Your task to perform on an android device: change the clock display to show seconds Image 0: 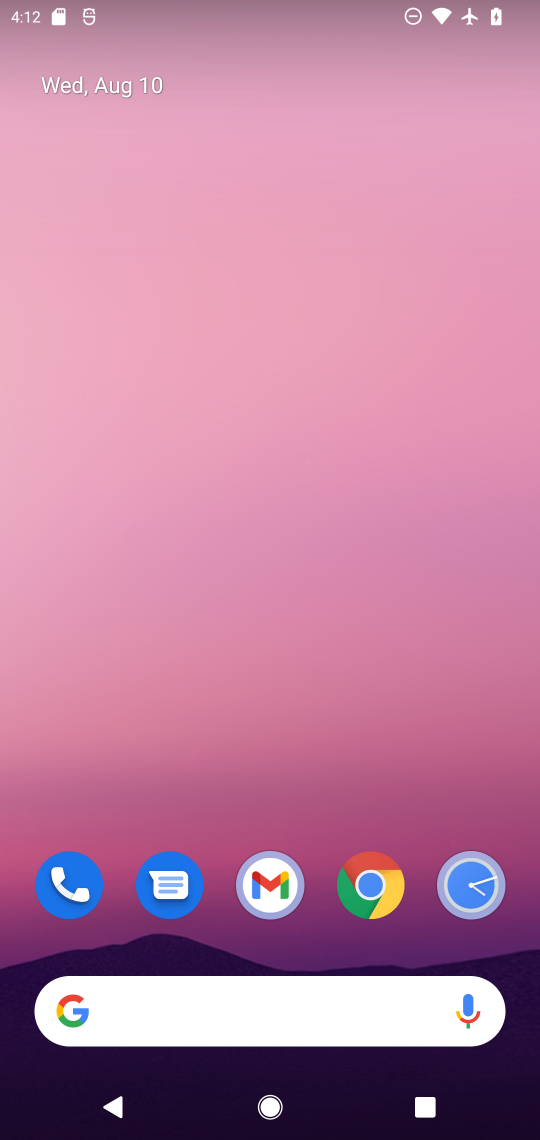
Step 0: click (472, 878)
Your task to perform on an android device: change the clock display to show seconds Image 1: 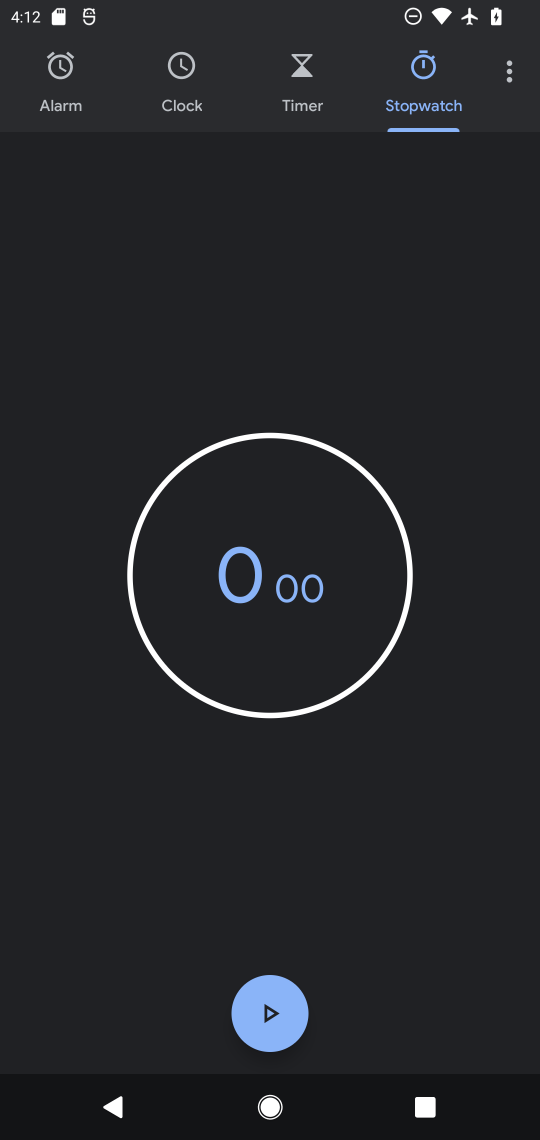
Step 1: click (516, 74)
Your task to perform on an android device: change the clock display to show seconds Image 2: 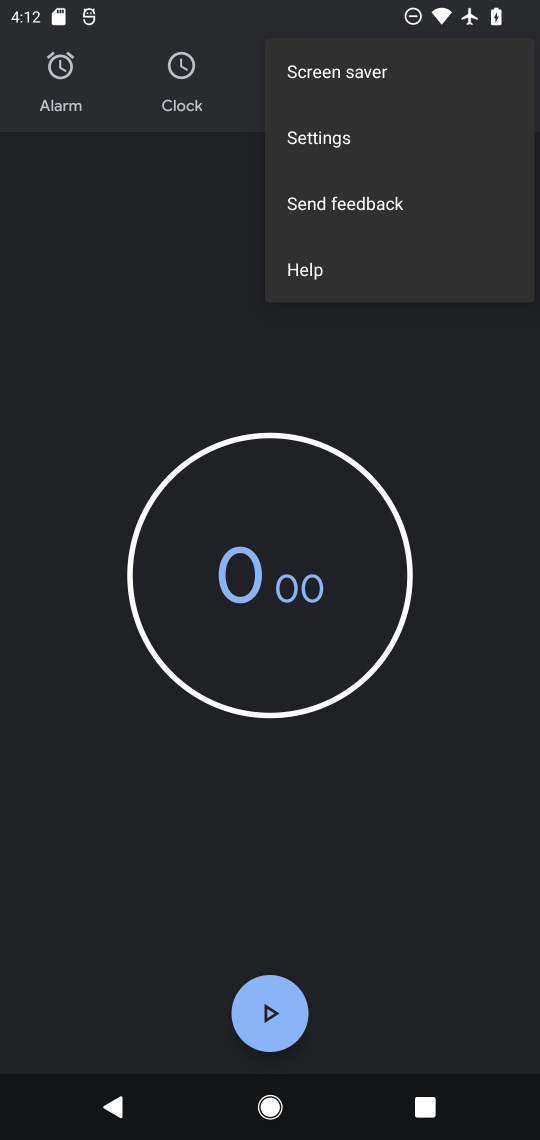
Step 2: click (323, 134)
Your task to perform on an android device: change the clock display to show seconds Image 3: 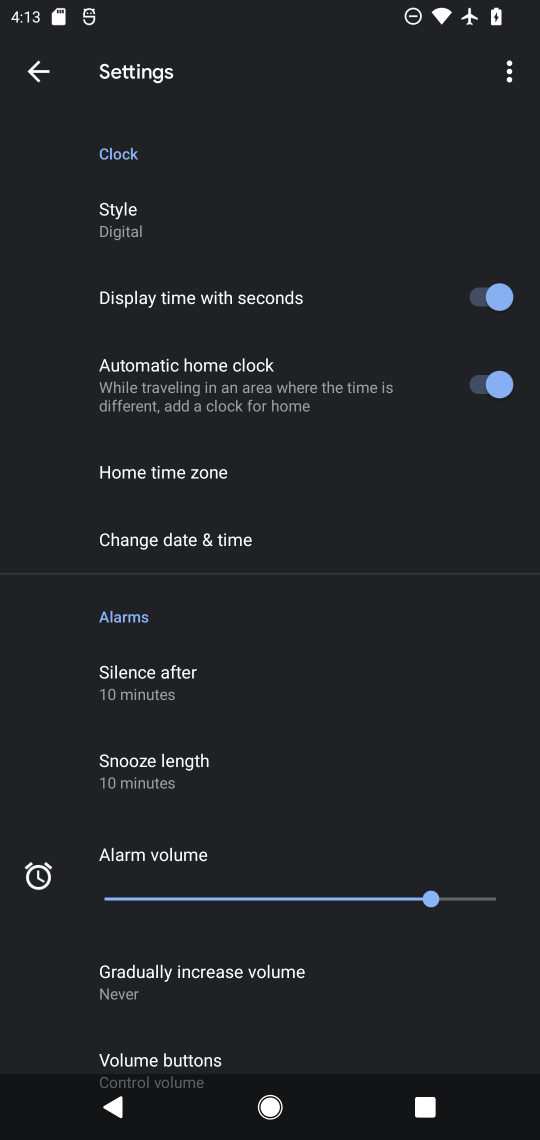
Step 3: task complete